Your task to perform on an android device: Open Youtube and go to the subscriptions tab Image 0: 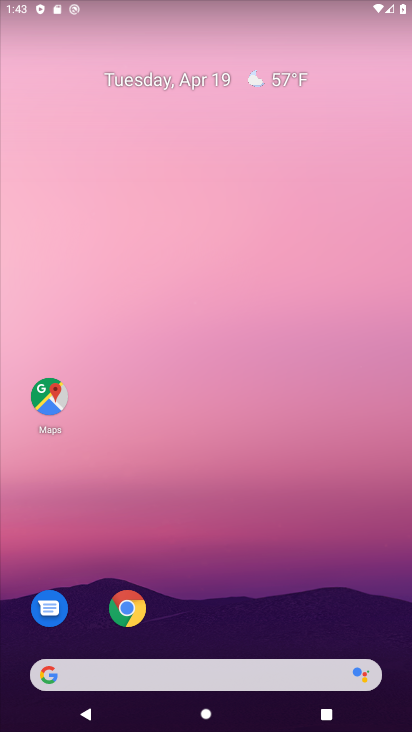
Step 0: drag from (183, 621) to (95, 127)
Your task to perform on an android device: Open Youtube and go to the subscriptions tab Image 1: 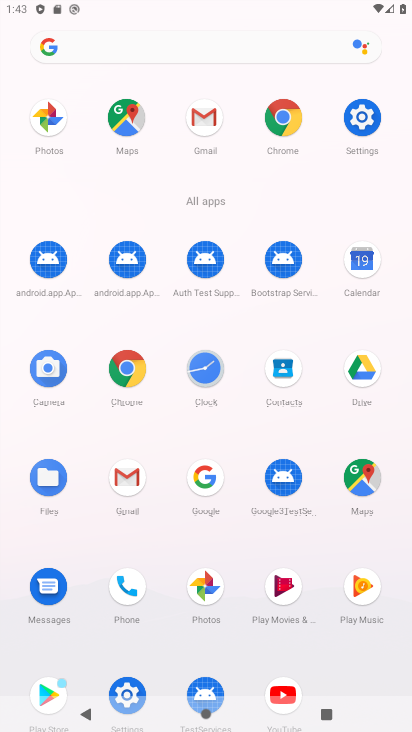
Step 1: drag from (282, 639) to (263, 341)
Your task to perform on an android device: Open Youtube and go to the subscriptions tab Image 2: 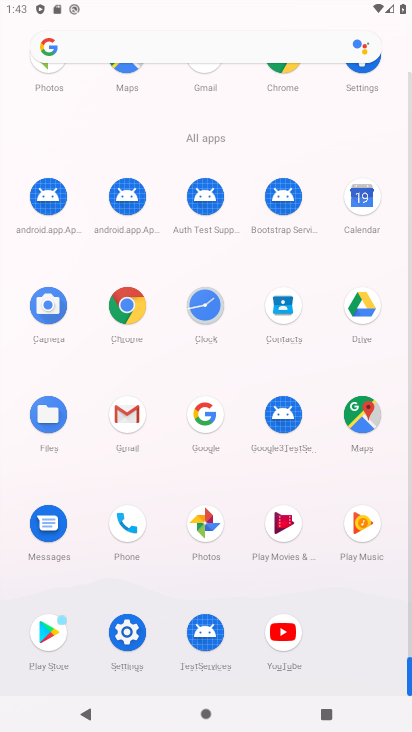
Step 2: click (273, 634)
Your task to perform on an android device: Open Youtube and go to the subscriptions tab Image 3: 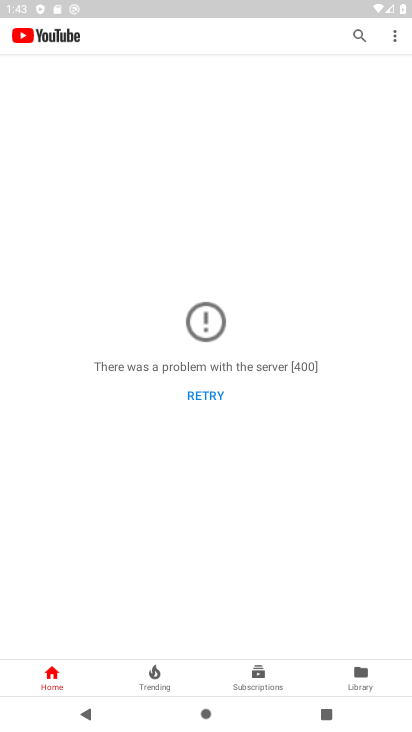
Step 3: click (257, 677)
Your task to perform on an android device: Open Youtube and go to the subscriptions tab Image 4: 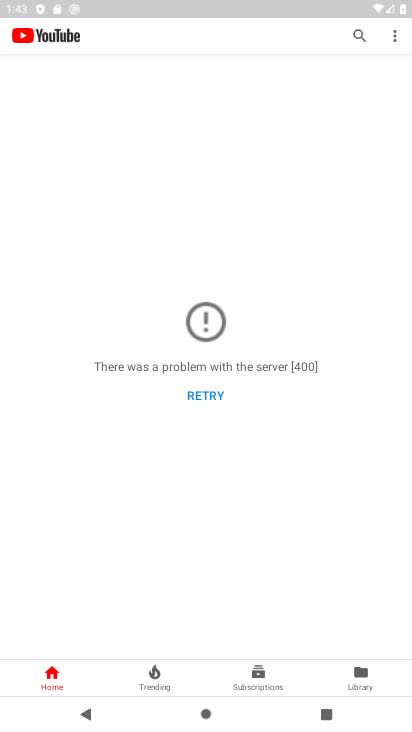
Step 4: click (255, 672)
Your task to perform on an android device: Open Youtube and go to the subscriptions tab Image 5: 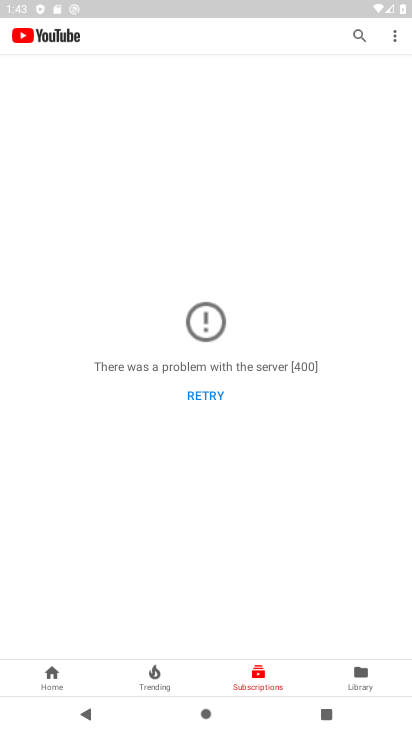
Step 5: task complete